Your task to perform on an android device: Do I have any events today? Image 0: 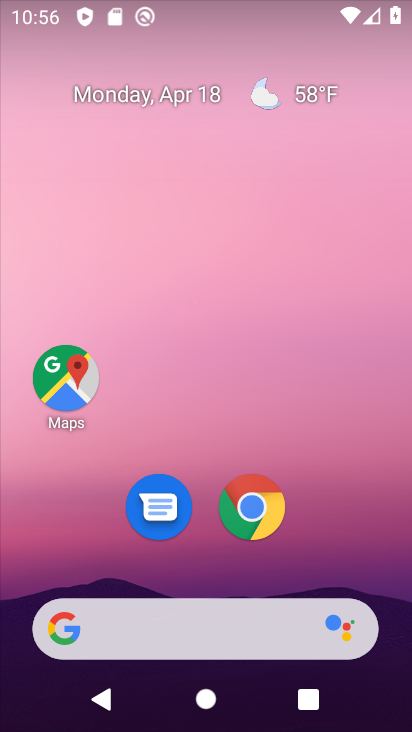
Step 0: click (141, 88)
Your task to perform on an android device: Do I have any events today? Image 1: 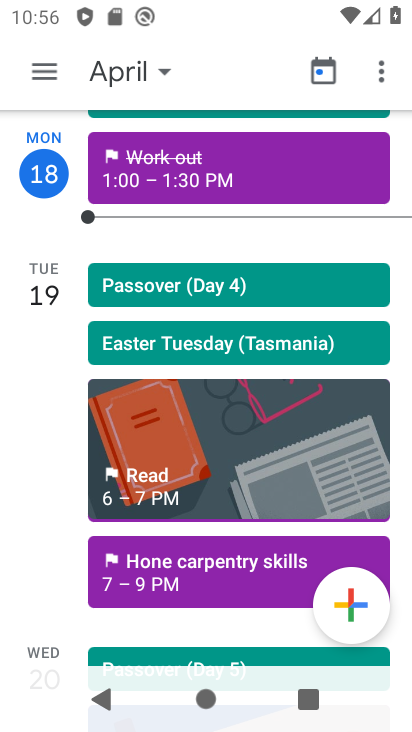
Step 1: click (146, 63)
Your task to perform on an android device: Do I have any events today? Image 2: 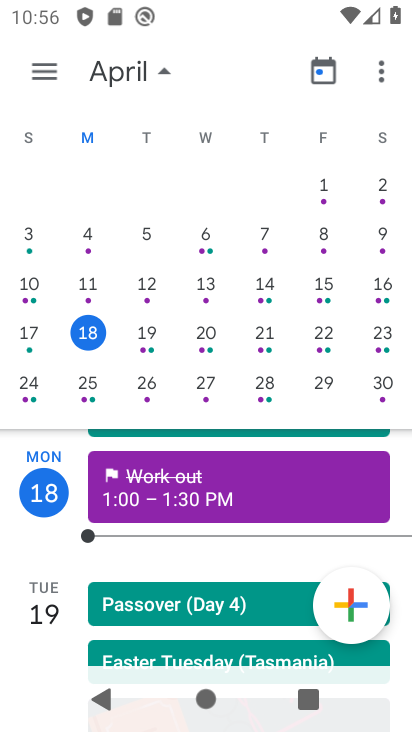
Step 2: click (94, 345)
Your task to perform on an android device: Do I have any events today? Image 3: 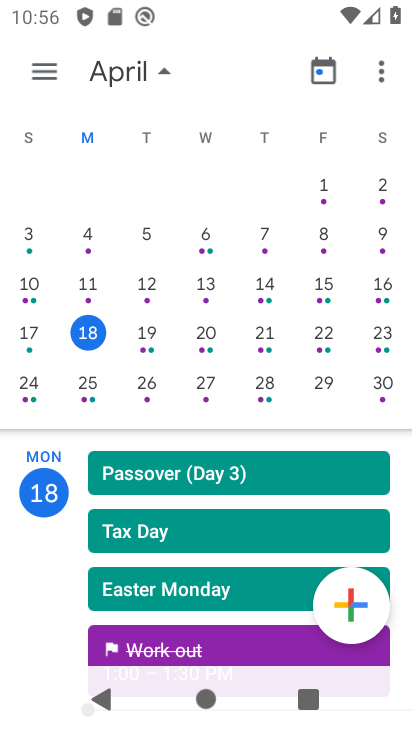
Step 3: click (216, 641)
Your task to perform on an android device: Do I have any events today? Image 4: 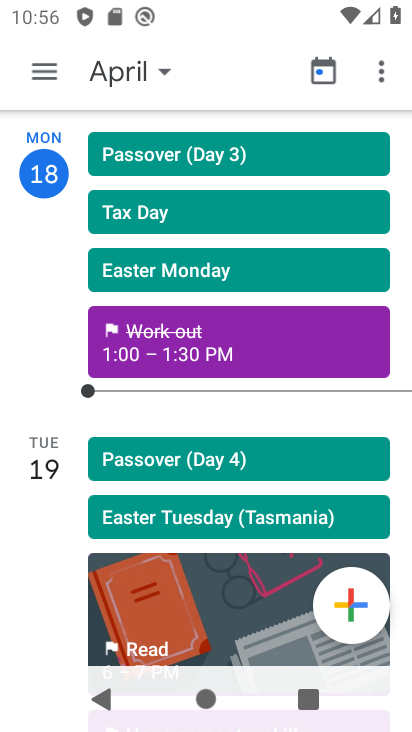
Step 4: click (234, 363)
Your task to perform on an android device: Do I have any events today? Image 5: 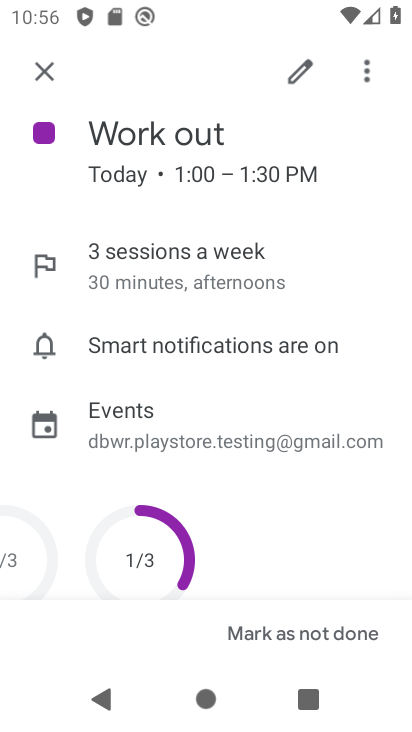
Step 5: task complete